Your task to perform on an android device: Go to privacy settings Image 0: 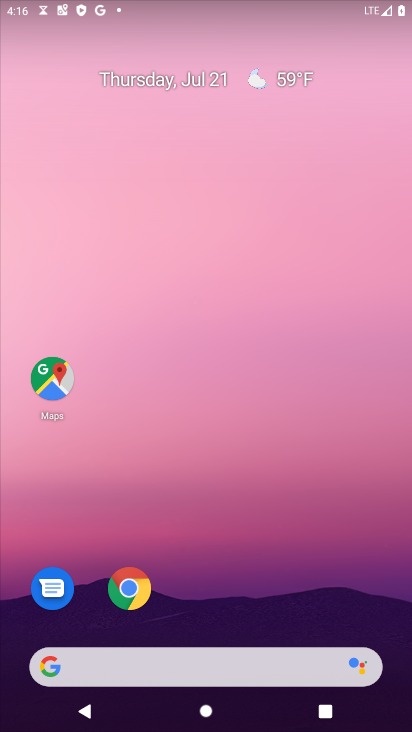
Step 0: drag from (272, 726) to (270, 37)
Your task to perform on an android device: Go to privacy settings Image 1: 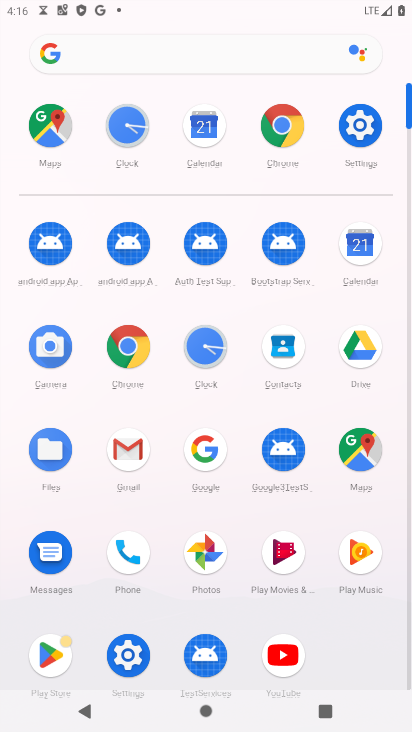
Step 1: click (363, 125)
Your task to perform on an android device: Go to privacy settings Image 2: 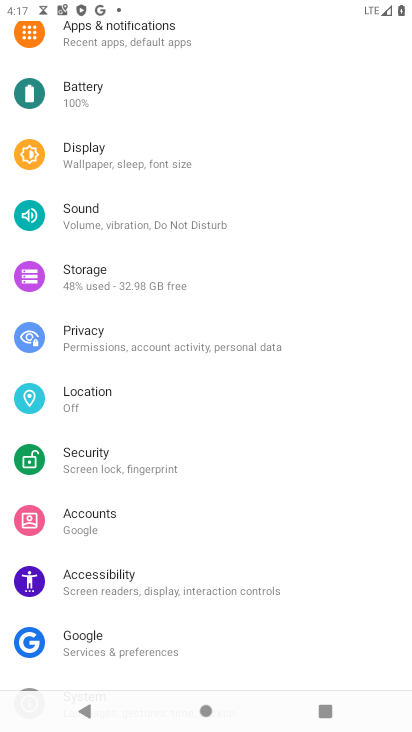
Step 2: click (83, 339)
Your task to perform on an android device: Go to privacy settings Image 3: 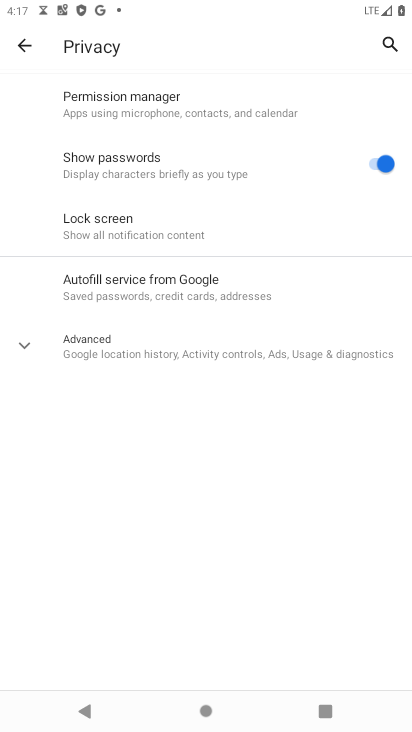
Step 3: task complete